Your task to perform on an android device: search for 2021 honda civic Image 0: 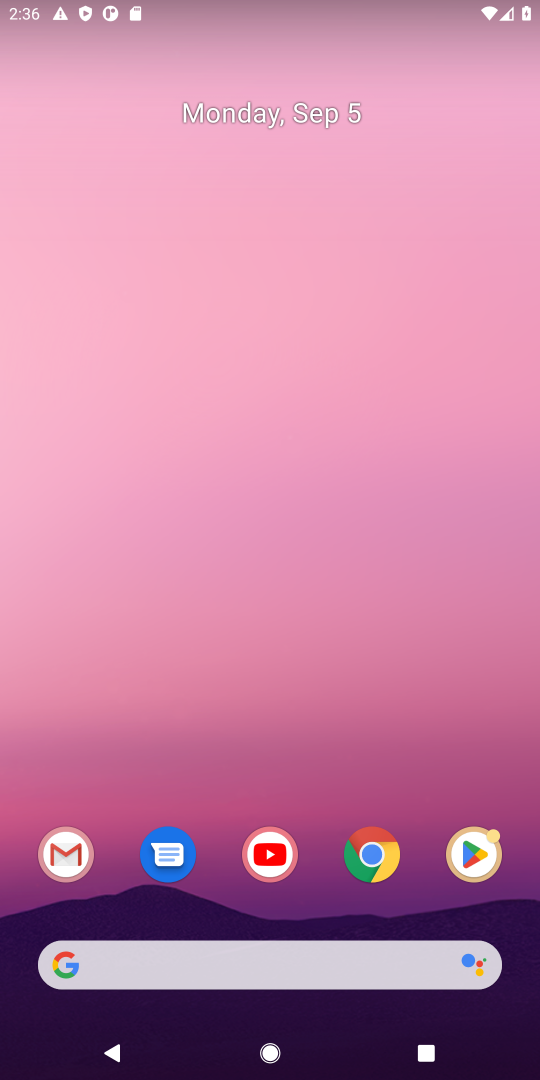
Step 0: click (334, 974)
Your task to perform on an android device: search for 2021 honda civic Image 1: 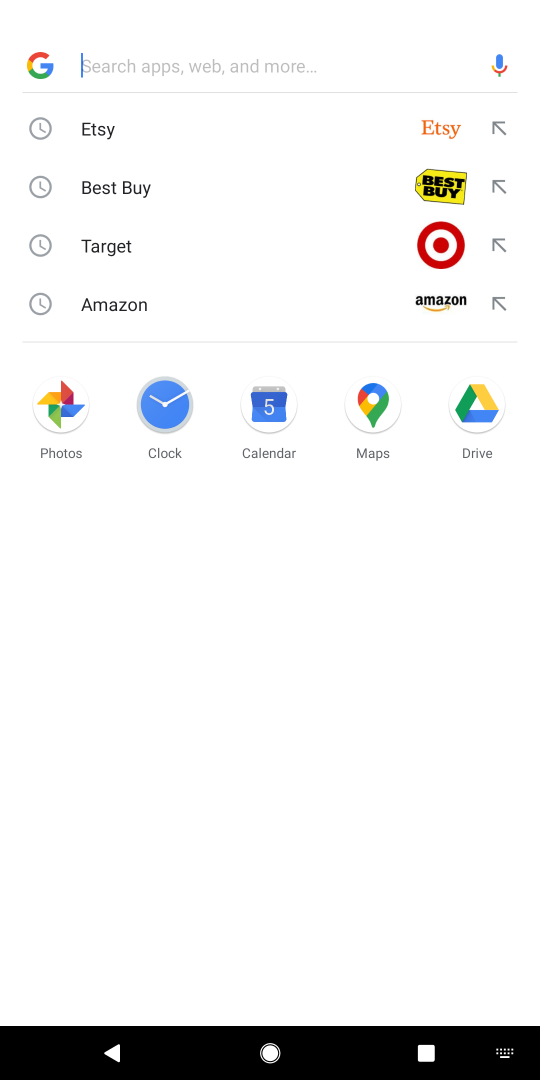
Step 1: type "2021 honda civic"
Your task to perform on an android device: search for 2021 honda civic Image 2: 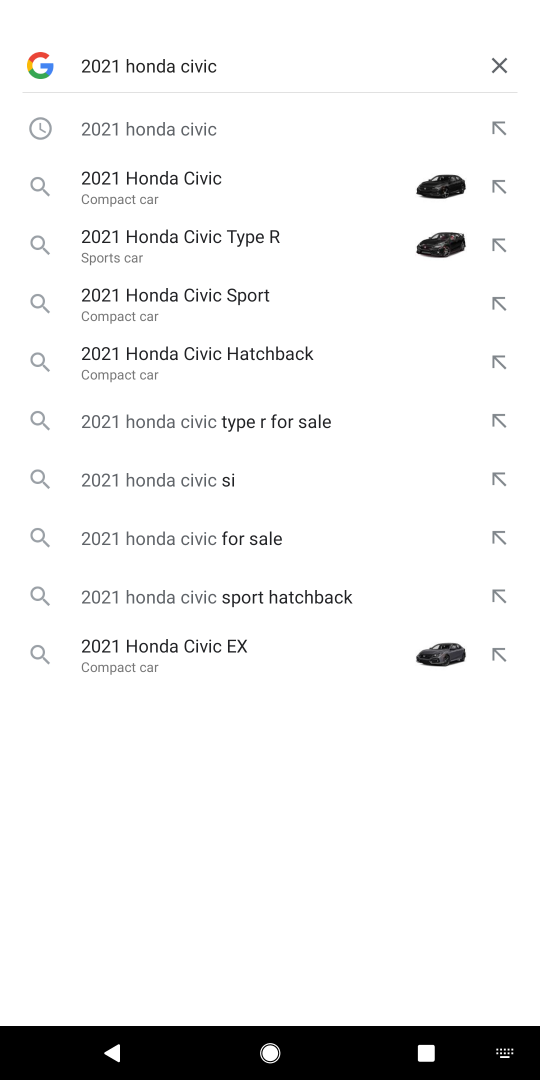
Step 2: press enter
Your task to perform on an android device: search for 2021 honda civic Image 3: 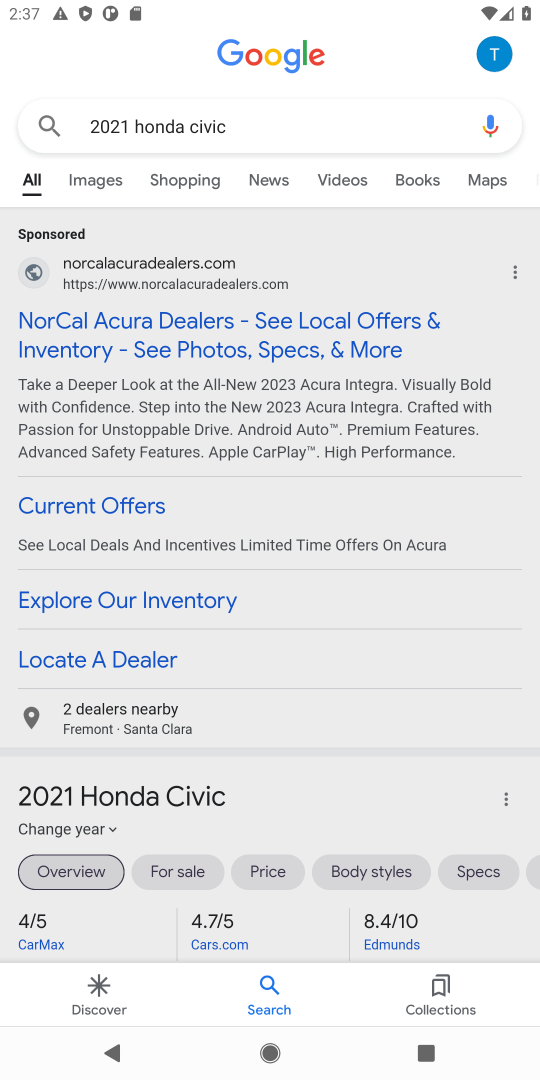
Step 3: task complete